Your task to perform on an android device: Open the calendar app, open the side menu, and click the "Day" option Image 0: 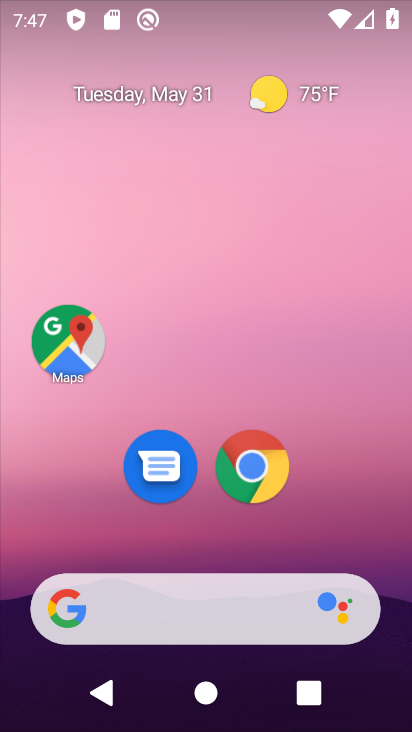
Step 0: click (216, 103)
Your task to perform on an android device: Open the calendar app, open the side menu, and click the "Day" option Image 1: 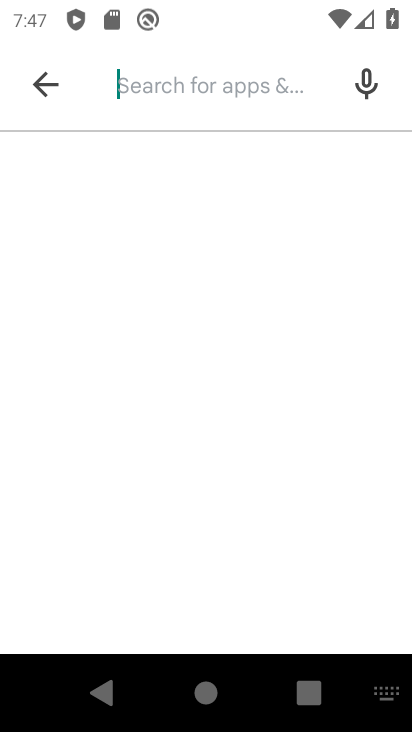
Step 1: press home button
Your task to perform on an android device: Open the calendar app, open the side menu, and click the "Day" option Image 2: 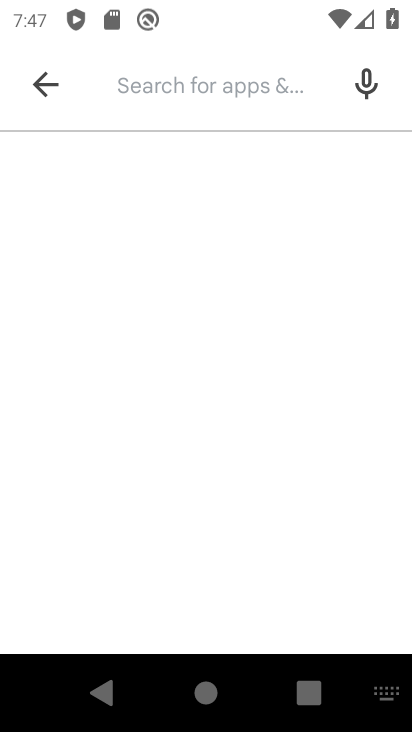
Step 2: drag from (241, 608) to (280, 118)
Your task to perform on an android device: Open the calendar app, open the side menu, and click the "Day" option Image 3: 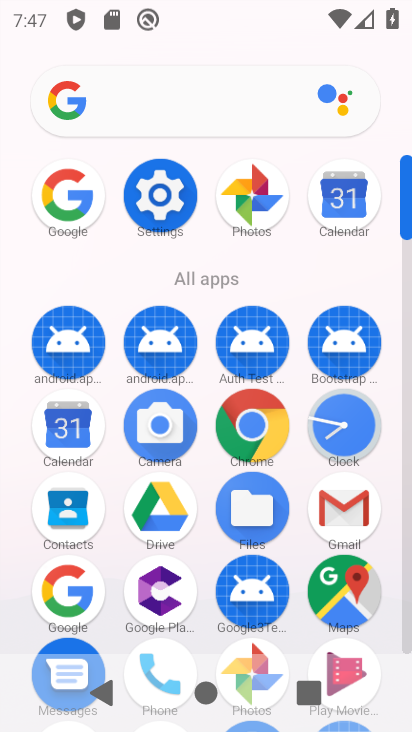
Step 3: click (75, 419)
Your task to perform on an android device: Open the calendar app, open the side menu, and click the "Day" option Image 4: 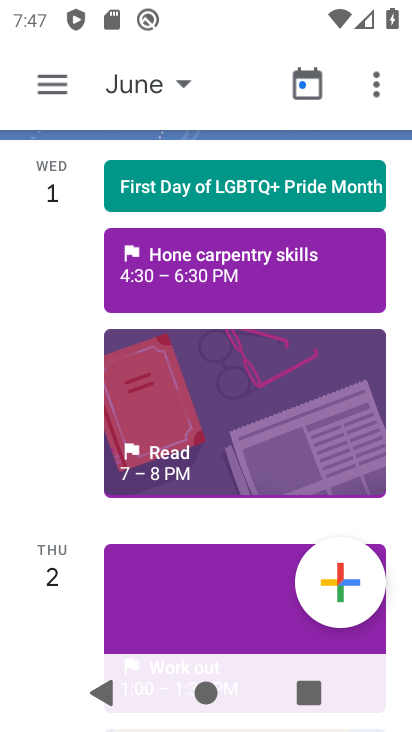
Step 4: click (47, 85)
Your task to perform on an android device: Open the calendar app, open the side menu, and click the "Day" option Image 5: 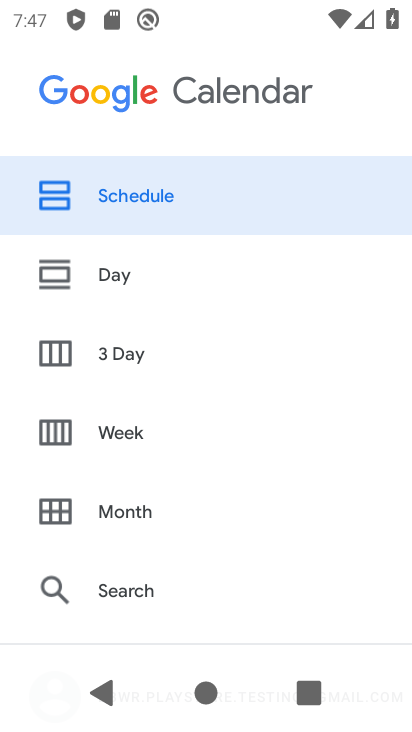
Step 5: click (131, 268)
Your task to perform on an android device: Open the calendar app, open the side menu, and click the "Day" option Image 6: 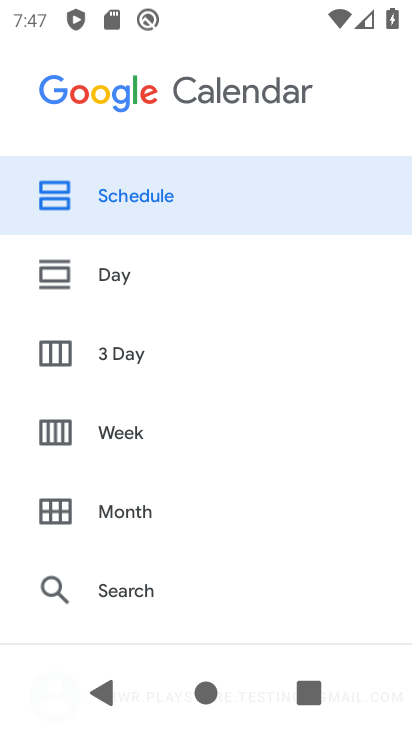
Step 6: task complete